Your task to perform on an android device: turn off improve location accuracy Image 0: 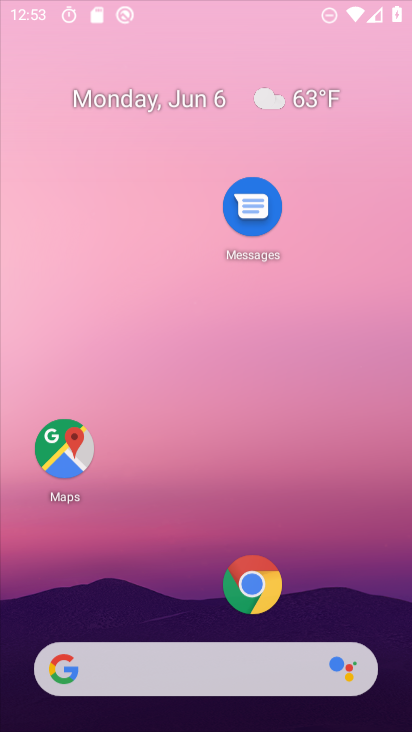
Step 0: click (255, 579)
Your task to perform on an android device: turn off improve location accuracy Image 1: 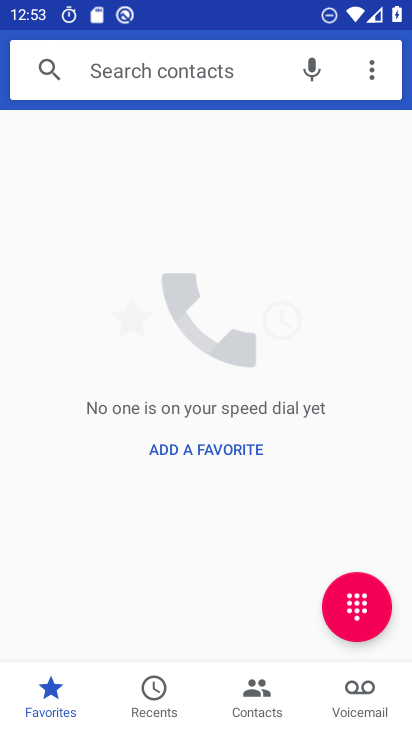
Step 1: press home button
Your task to perform on an android device: turn off improve location accuracy Image 2: 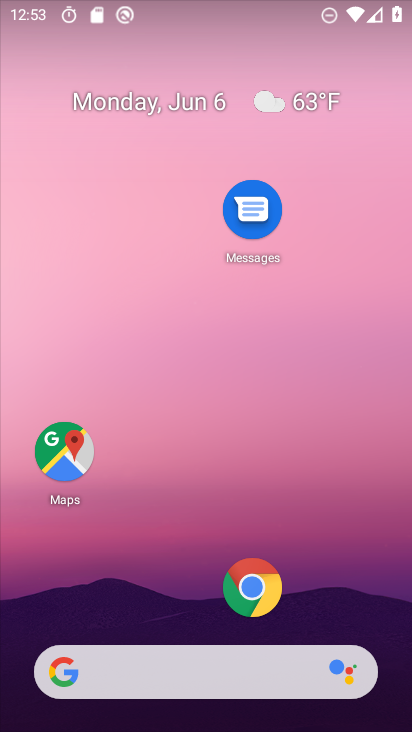
Step 2: drag from (172, 296) to (192, 68)
Your task to perform on an android device: turn off improve location accuracy Image 3: 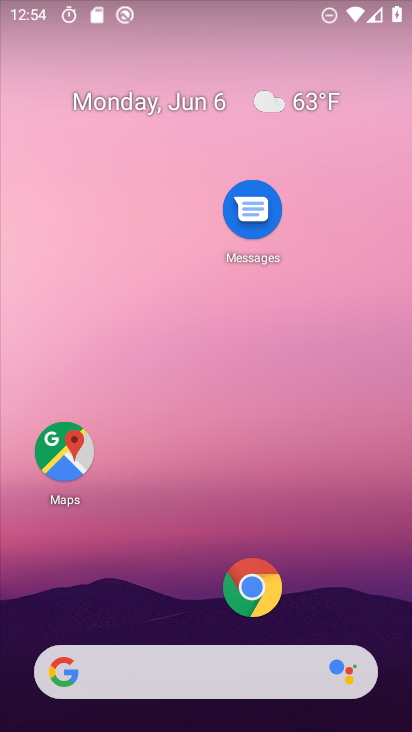
Step 3: drag from (141, 622) to (142, 234)
Your task to perform on an android device: turn off improve location accuracy Image 4: 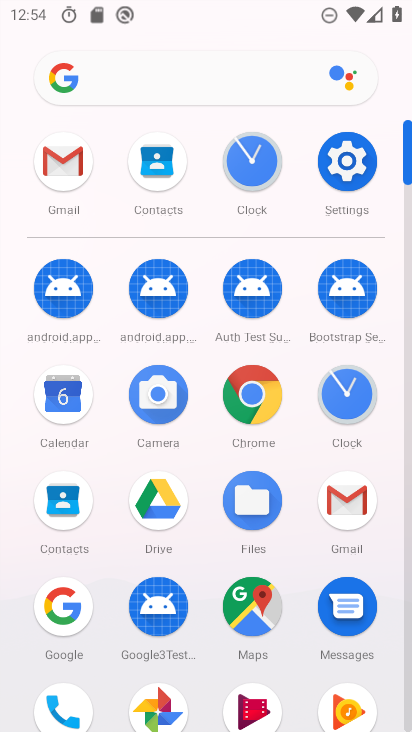
Step 4: click (333, 153)
Your task to perform on an android device: turn off improve location accuracy Image 5: 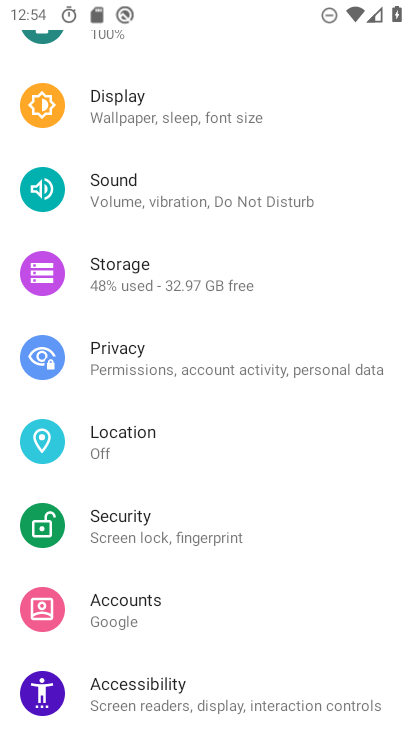
Step 5: click (123, 438)
Your task to perform on an android device: turn off improve location accuracy Image 6: 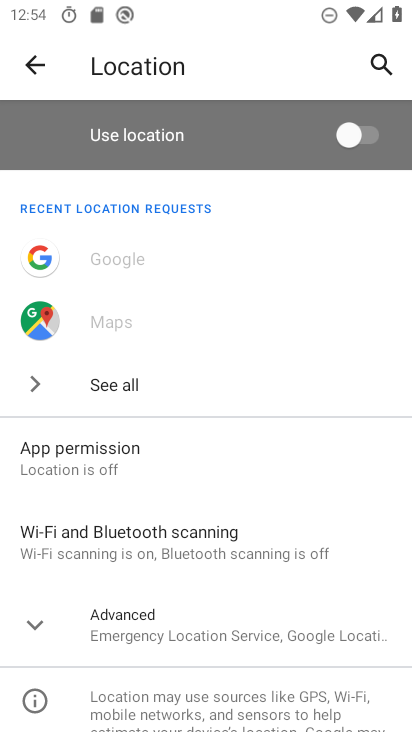
Step 6: click (135, 678)
Your task to perform on an android device: turn off improve location accuracy Image 7: 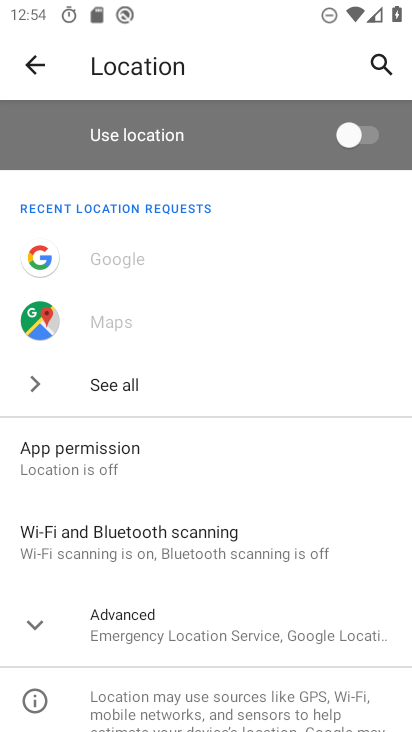
Step 7: click (184, 646)
Your task to perform on an android device: turn off improve location accuracy Image 8: 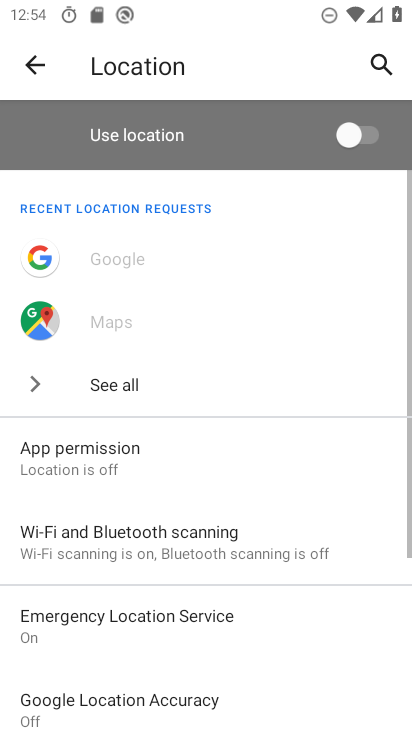
Step 8: drag from (184, 646) to (267, 172)
Your task to perform on an android device: turn off improve location accuracy Image 9: 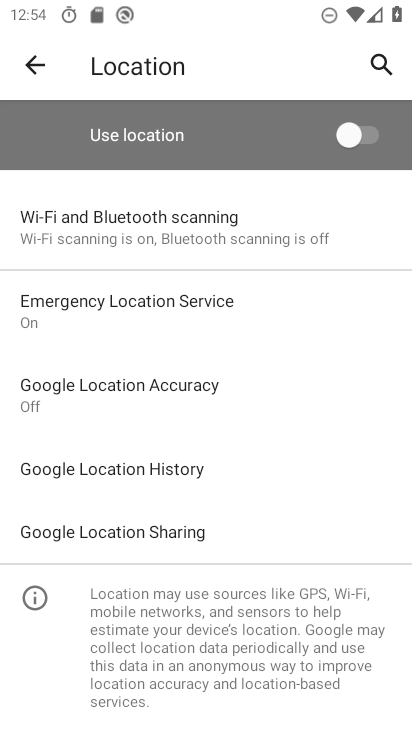
Step 9: click (144, 404)
Your task to perform on an android device: turn off improve location accuracy Image 10: 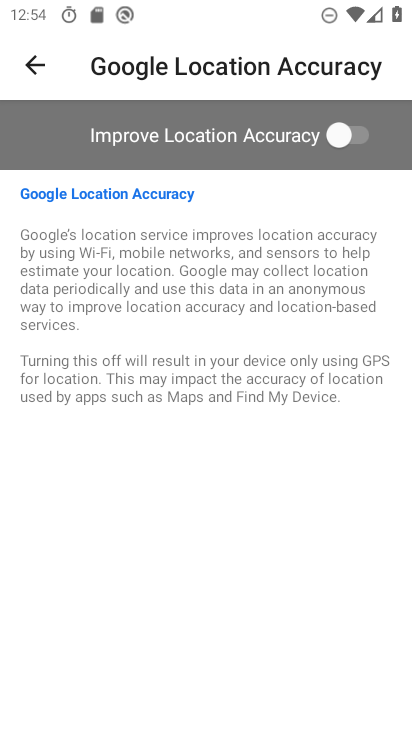
Step 10: task complete